Your task to perform on an android device: Open wifi settings Image 0: 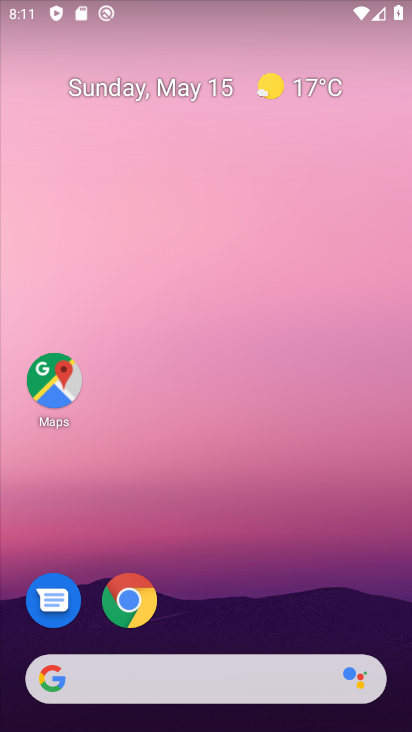
Step 0: drag from (254, 623) to (165, 20)
Your task to perform on an android device: Open wifi settings Image 1: 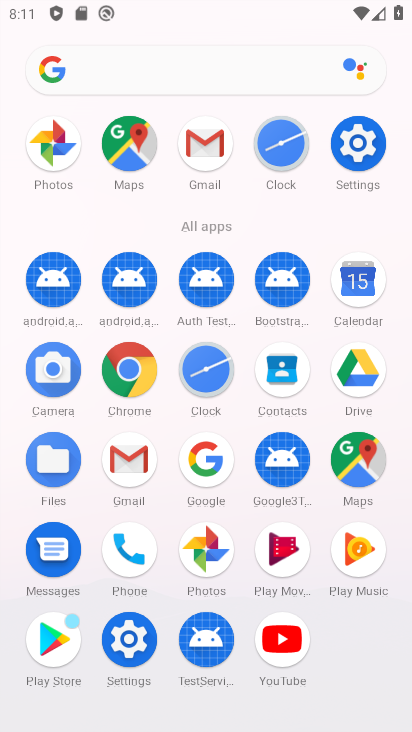
Step 1: click (357, 142)
Your task to perform on an android device: Open wifi settings Image 2: 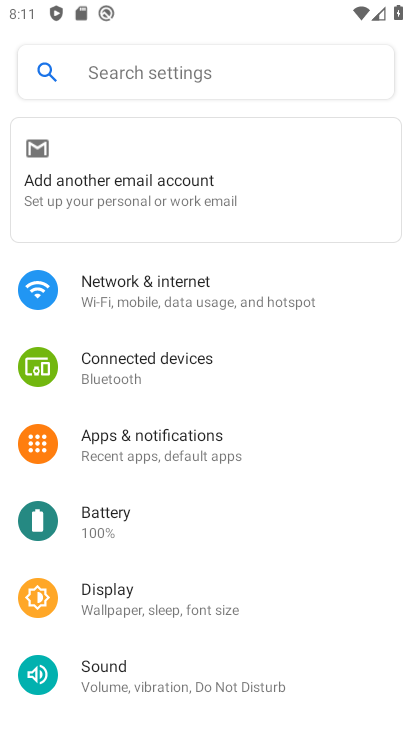
Step 2: click (160, 297)
Your task to perform on an android device: Open wifi settings Image 3: 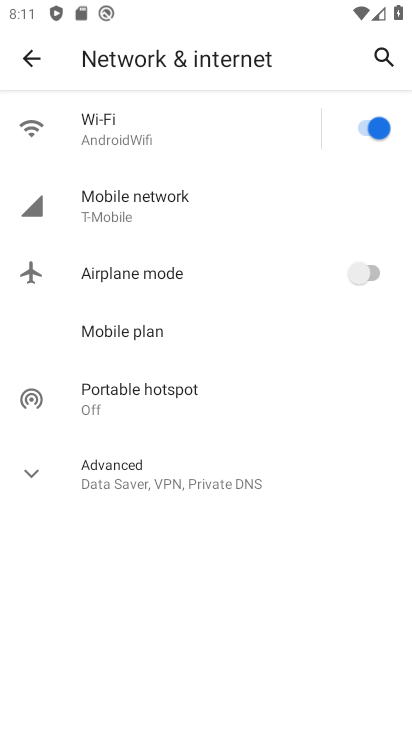
Step 3: click (101, 138)
Your task to perform on an android device: Open wifi settings Image 4: 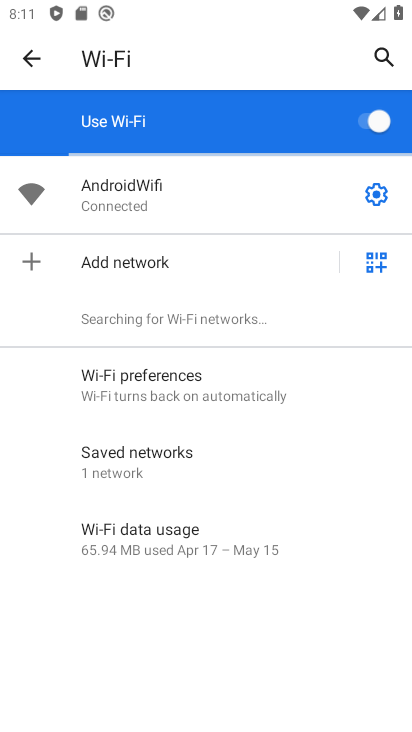
Step 4: click (373, 193)
Your task to perform on an android device: Open wifi settings Image 5: 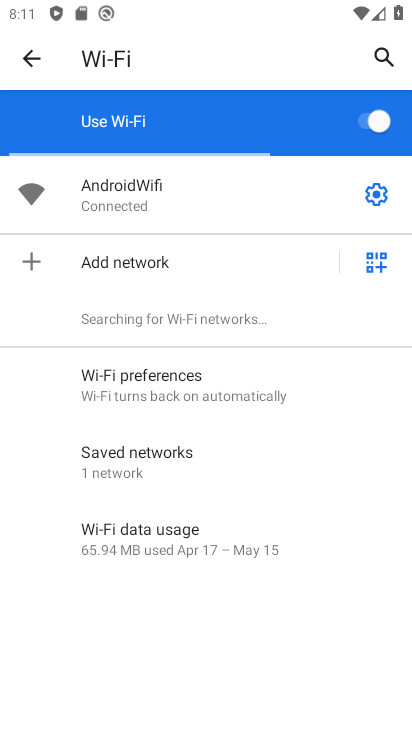
Step 5: click (375, 196)
Your task to perform on an android device: Open wifi settings Image 6: 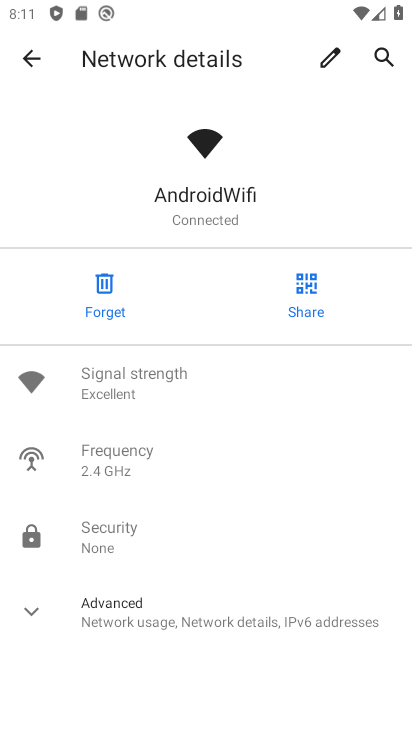
Step 6: task complete